Your task to perform on an android device: search for starred emails in the gmail app Image 0: 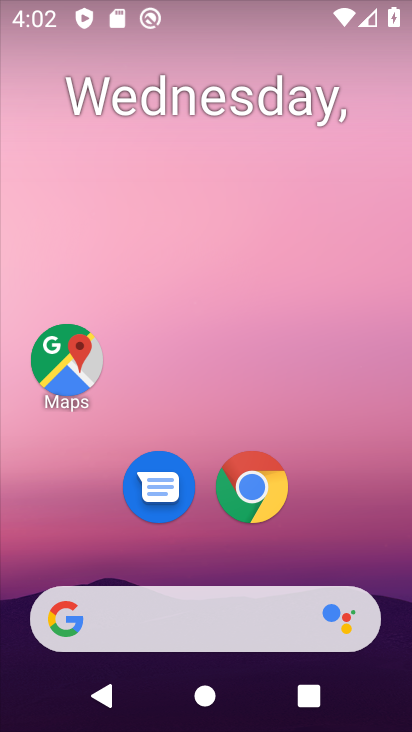
Step 0: drag from (203, 558) to (196, 54)
Your task to perform on an android device: search for starred emails in the gmail app Image 1: 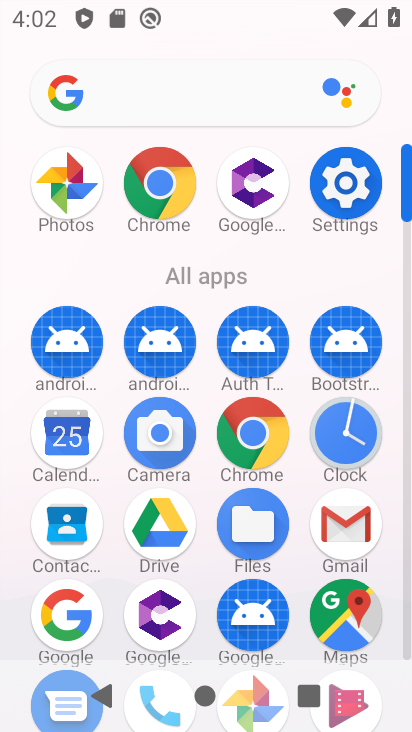
Step 1: click (345, 516)
Your task to perform on an android device: search for starred emails in the gmail app Image 2: 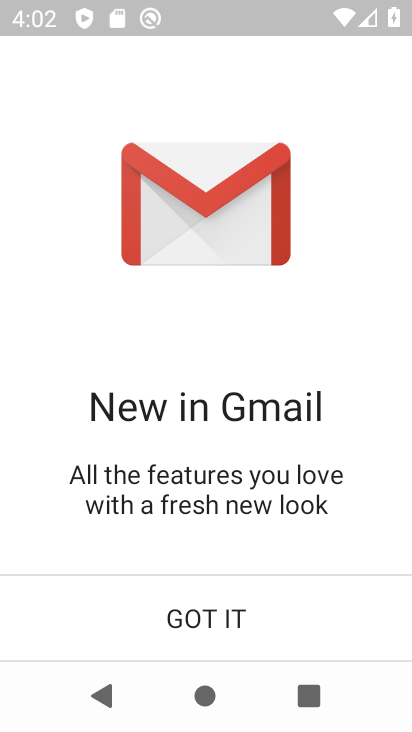
Step 2: click (214, 634)
Your task to perform on an android device: search for starred emails in the gmail app Image 3: 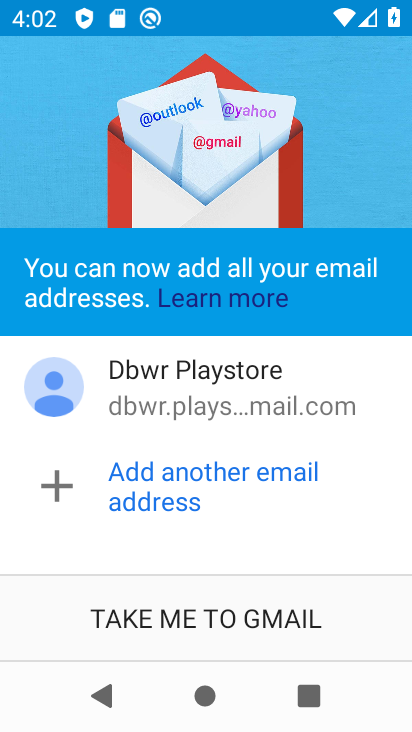
Step 3: click (200, 633)
Your task to perform on an android device: search for starred emails in the gmail app Image 4: 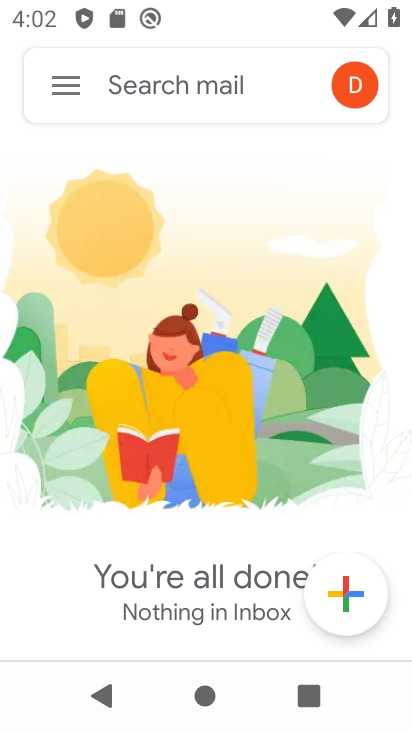
Step 4: click (66, 81)
Your task to perform on an android device: search for starred emails in the gmail app Image 5: 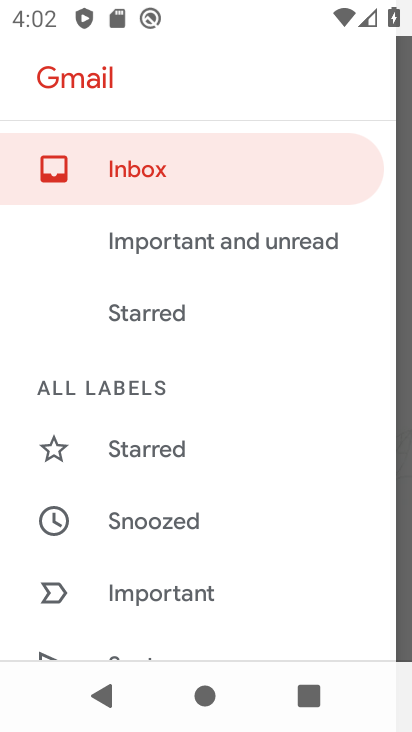
Step 5: click (199, 448)
Your task to perform on an android device: search for starred emails in the gmail app Image 6: 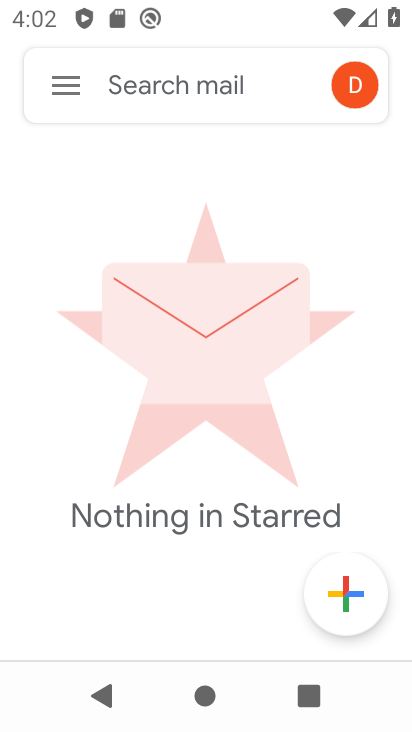
Step 6: task complete